Your task to perform on an android device: Check the news Image 0: 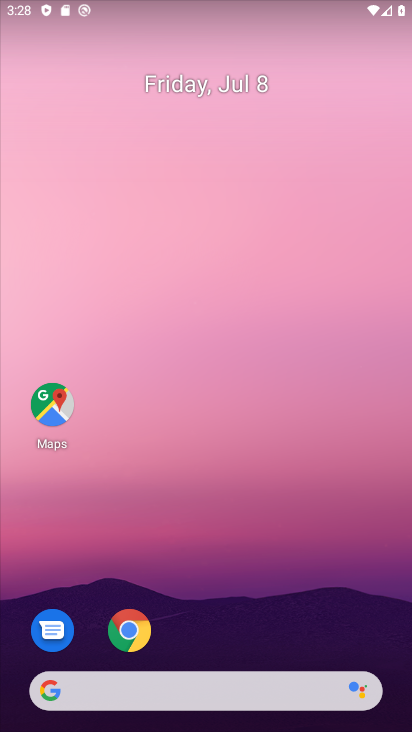
Step 0: click (215, 688)
Your task to perform on an android device: Check the news Image 1: 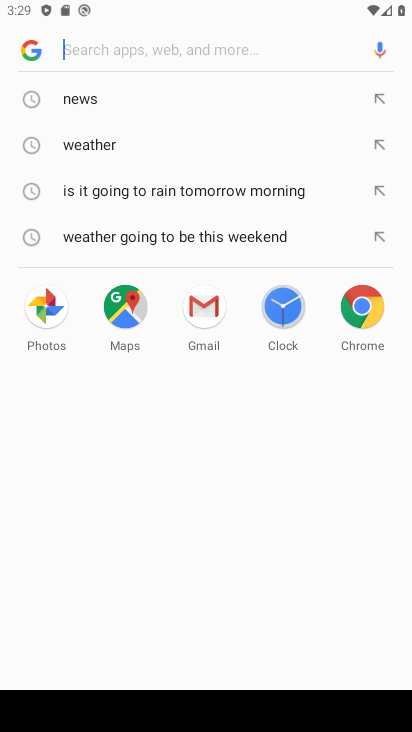
Step 1: type "news"
Your task to perform on an android device: Check the news Image 2: 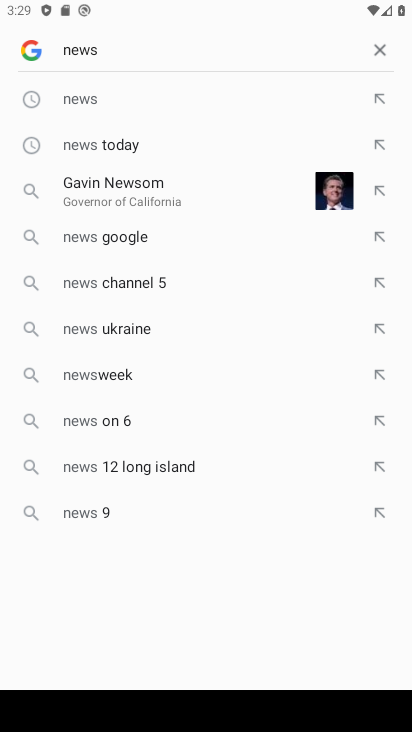
Step 2: click (97, 91)
Your task to perform on an android device: Check the news Image 3: 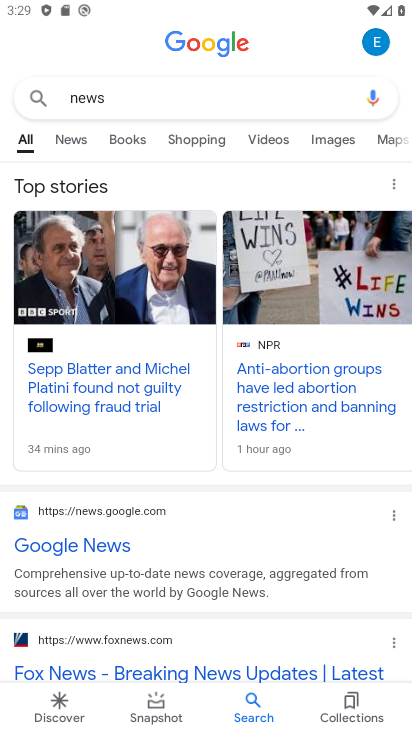
Step 3: click (73, 130)
Your task to perform on an android device: Check the news Image 4: 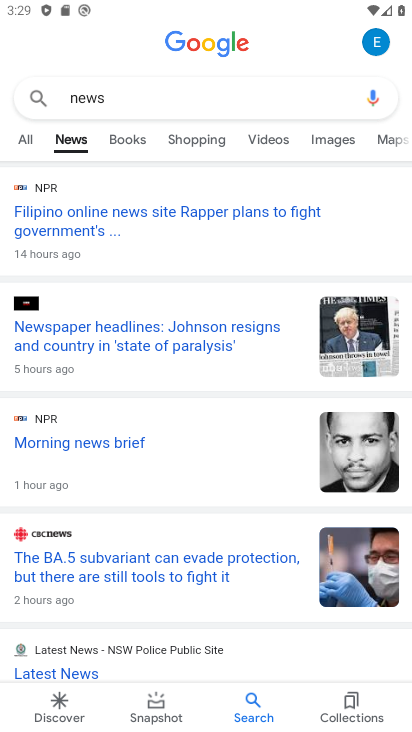
Step 4: task complete